Your task to perform on an android device: set default search engine in the chrome app Image 0: 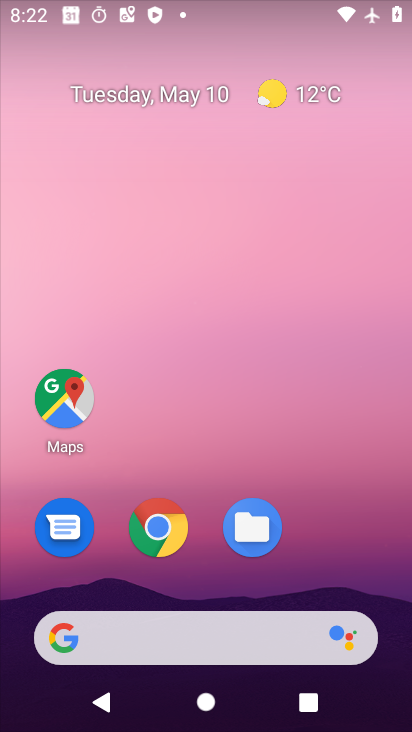
Step 0: click (146, 545)
Your task to perform on an android device: set default search engine in the chrome app Image 1: 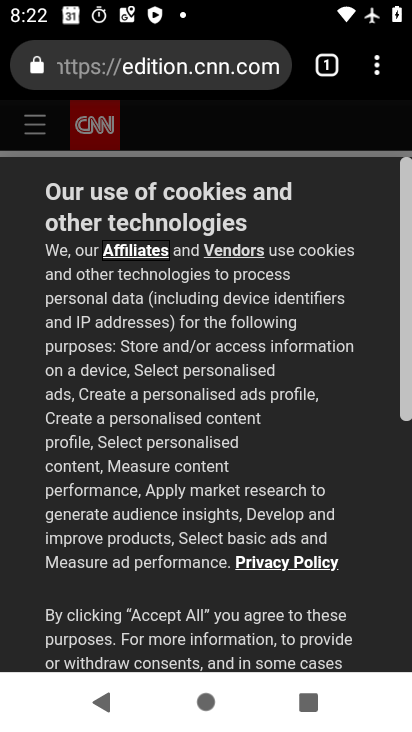
Step 1: drag from (380, 77) to (258, 581)
Your task to perform on an android device: set default search engine in the chrome app Image 2: 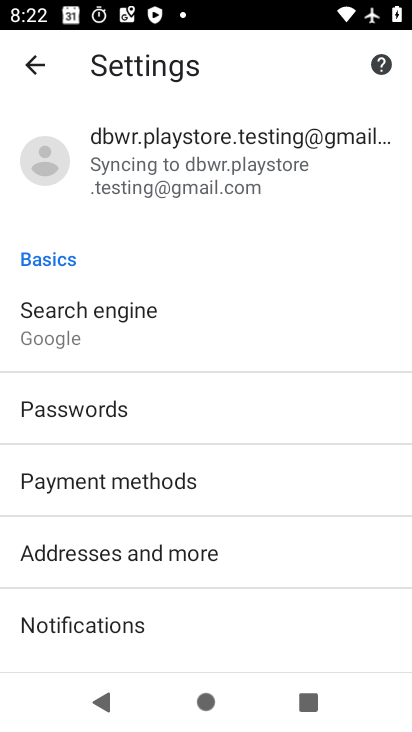
Step 2: click (199, 330)
Your task to perform on an android device: set default search engine in the chrome app Image 3: 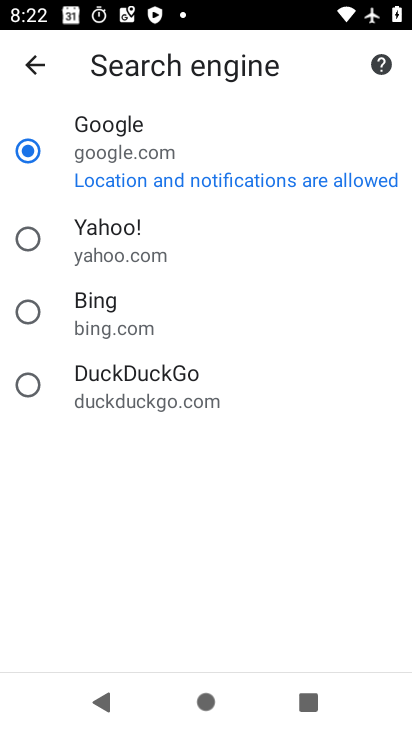
Step 3: click (157, 323)
Your task to perform on an android device: set default search engine in the chrome app Image 4: 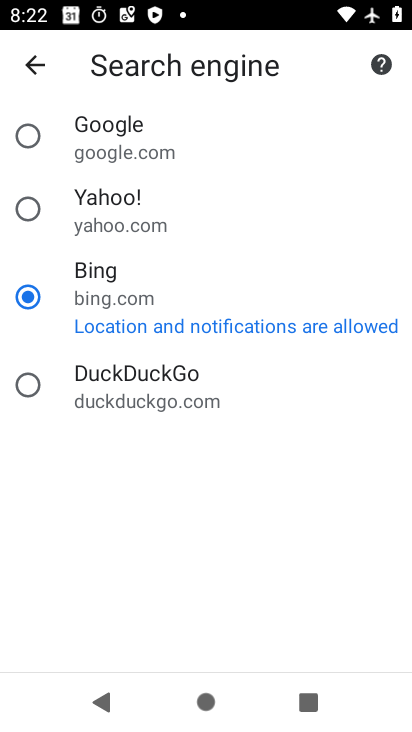
Step 4: task complete